Your task to perform on an android device: delete the emails in spam in the gmail app Image 0: 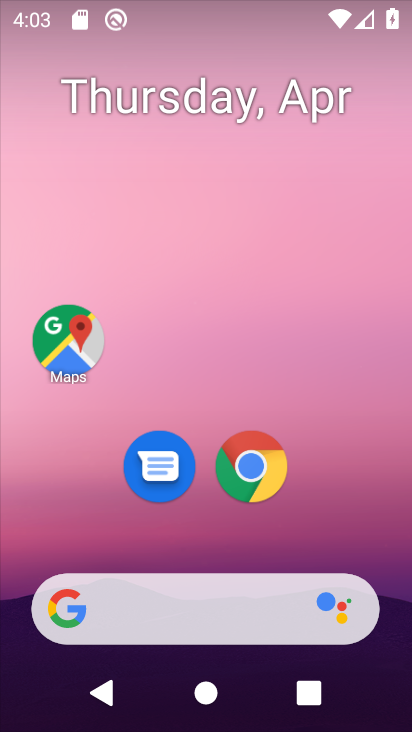
Step 0: drag from (214, 442) to (285, 15)
Your task to perform on an android device: delete the emails in spam in the gmail app Image 1: 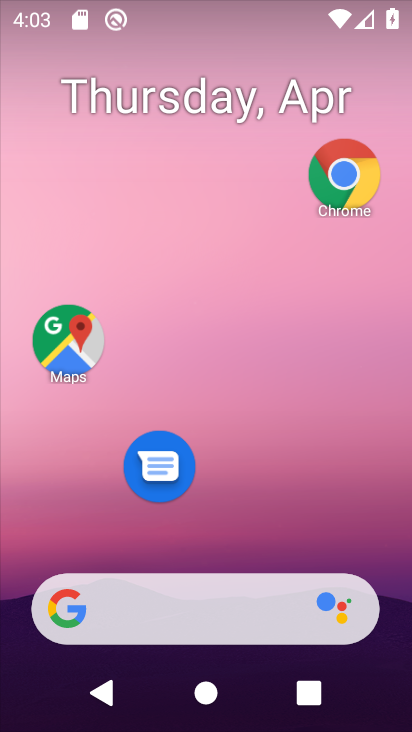
Step 1: drag from (217, 538) to (324, 13)
Your task to perform on an android device: delete the emails in spam in the gmail app Image 2: 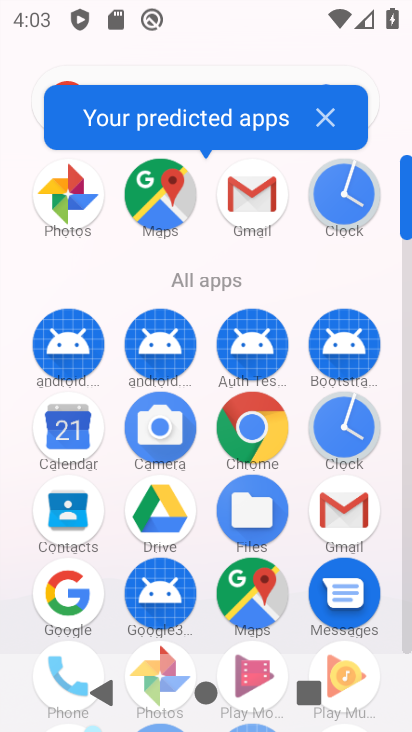
Step 2: click (340, 533)
Your task to perform on an android device: delete the emails in spam in the gmail app Image 3: 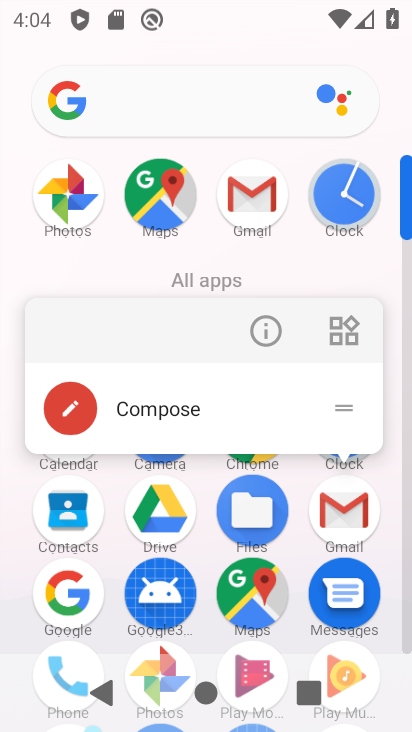
Step 3: click (352, 527)
Your task to perform on an android device: delete the emails in spam in the gmail app Image 4: 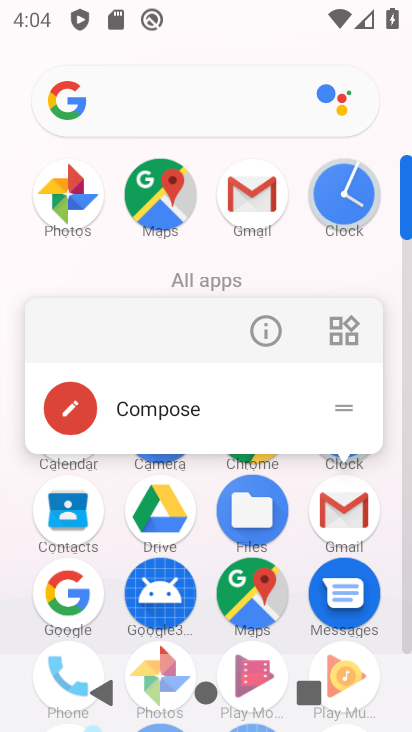
Step 4: click (363, 515)
Your task to perform on an android device: delete the emails in spam in the gmail app Image 5: 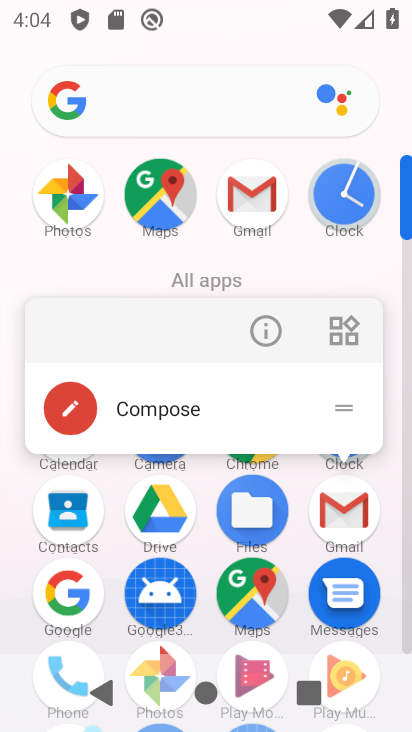
Step 5: click (358, 519)
Your task to perform on an android device: delete the emails in spam in the gmail app Image 6: 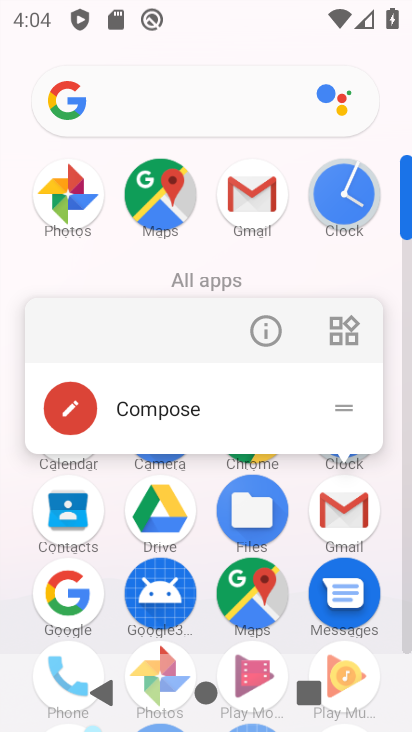
Step 6: click (352, 505)
Your task to perform on an android device: delete the emails in spam in the gmail app Image 7: 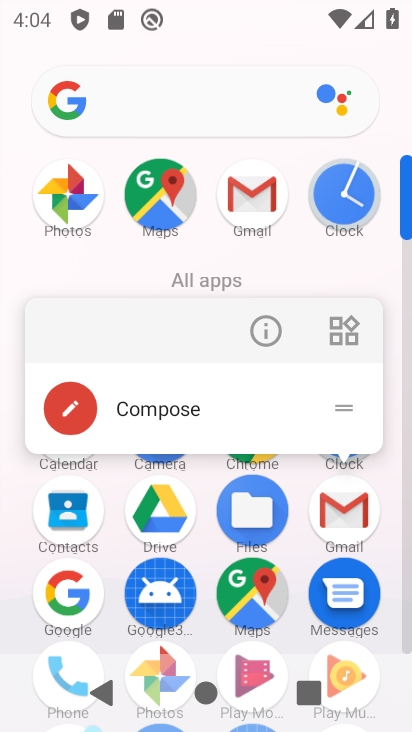
Step 7: click (334, 511)
Your task to perform on an android device: delete the emails in spam in the gmail app Image 8: 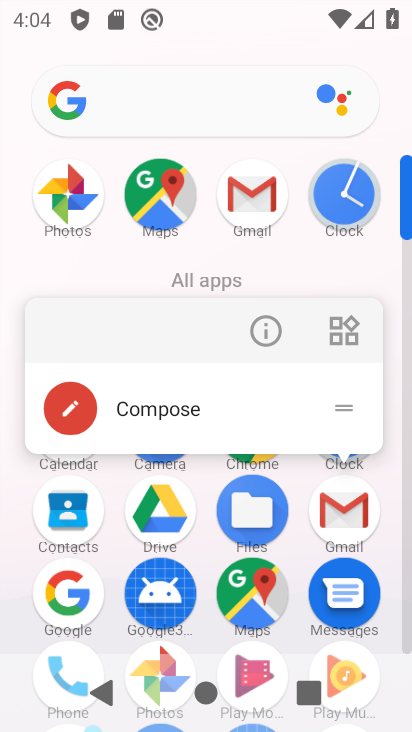
Step 8: click (334, 511)
Your task to perform on an android device: delete the emails in spam in the gmail app Image 9: 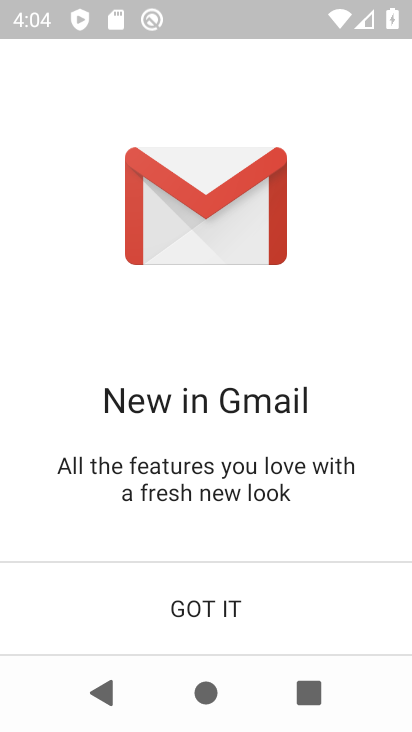
Step 9: click (296, 619)
Your task to perform on an android device: delete the emails in spam in the gmail app Image 10: 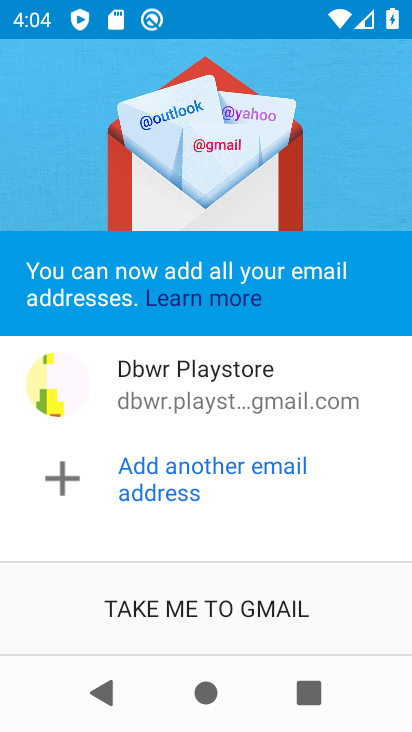
Step 10: click (242, 620)
Your task to perform on an android device: delete the emails in spam in the gmail app Image 11: 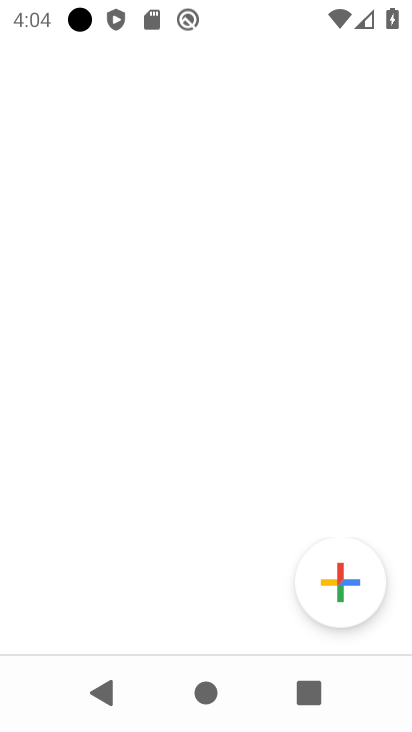
Step 11: click (242, 620)
Your task to perform on an android device: delete the emails in spam in the gmail app Image 12: 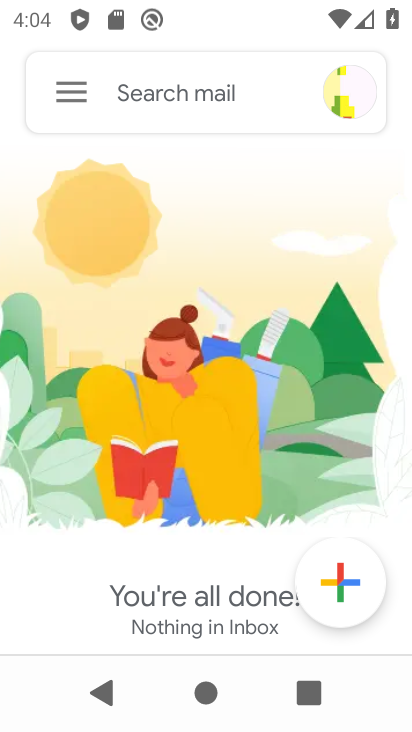
Step 12: click (78, 98)
Your task to perform on an android device: delete the emails in spam in the gmail app Image 13: 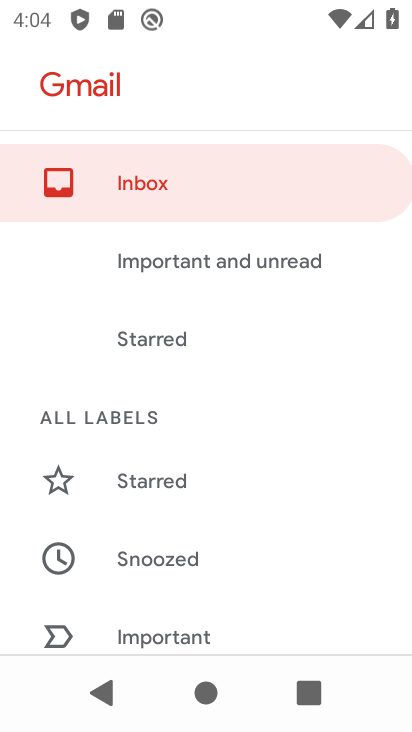
Step 13: drag from (193, 512) to (274, 185)
Your task to perform on an android device: delete the emails in spam in the gmail app Image 14: 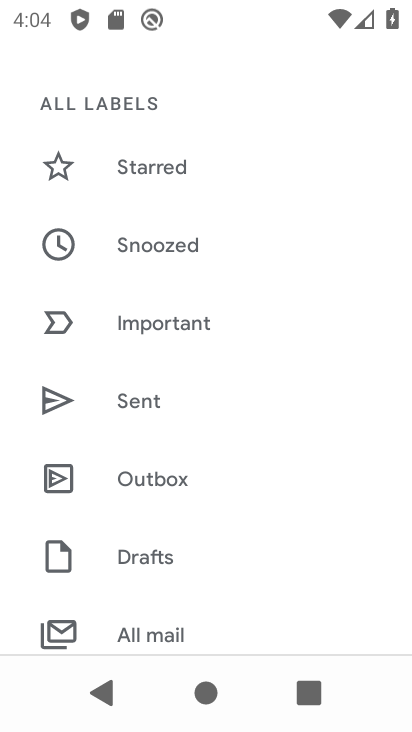
Step 14: drag from (207, 598) to (279, 385)
Your task to perform on an android device: delete the emails in spam in the gmail app Image 15: 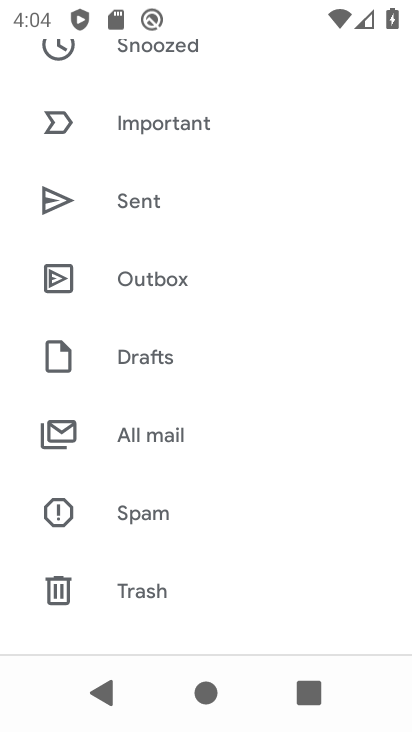
Step 15: click (237, 438)
Your task to perform on an android device: delete the emails in spam in the gmail app Image 16: 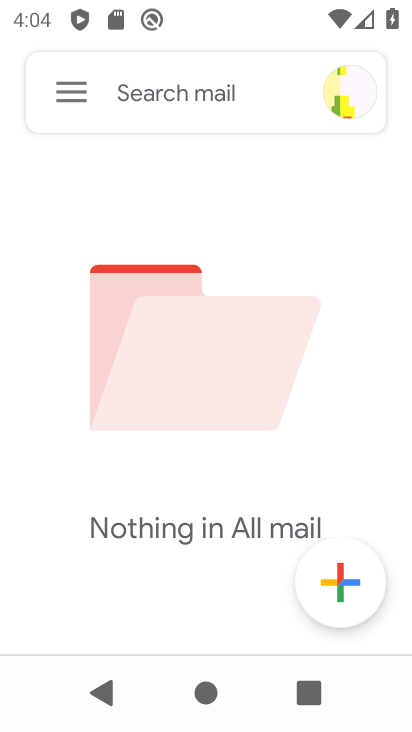
Step 16: task complete